Your task to perform on an android device: Search for lenovo thinkpad on walmart.com, select the first entry, add it to the cart, then select checkout. Image 0: 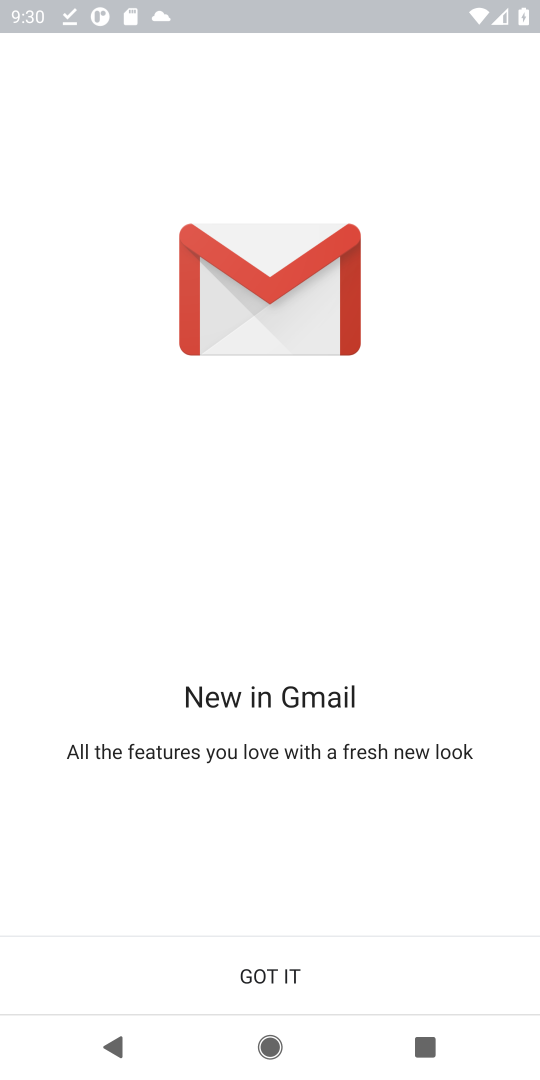
Step 0: press home button
Your task to perform on an android device: Search for lenovo thinkpad on walmart.com, select the first entry, add it to the cart, then select checkout. Image 1: 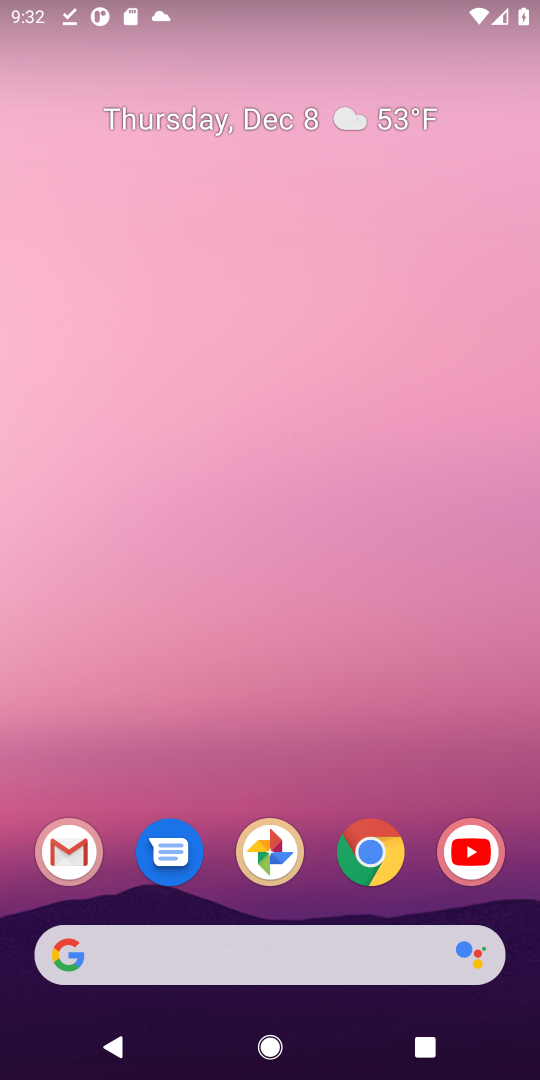
Step 1: click (149, 949)
Your task to perform on an android device: Search for lenovo thinkpad on walmart.com, select the first entry, add it to the cart, then select checkout. Image 2: 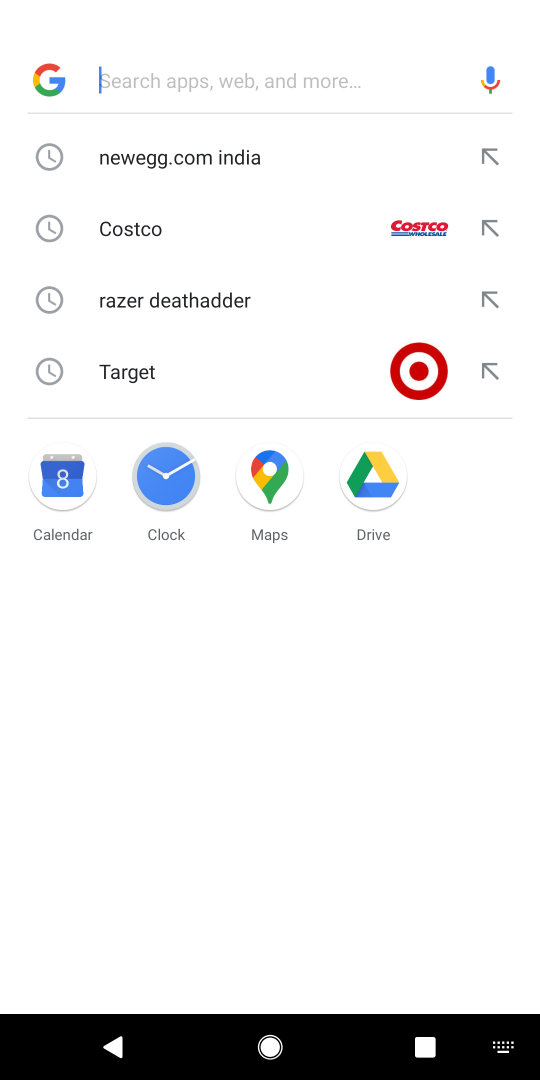
Step 2: type "walmart"
Your task to perform on an android device: Search for lenovo thinkpad on walmart.com, select the first entry, add it to the cart, then select checkout. Image 3: 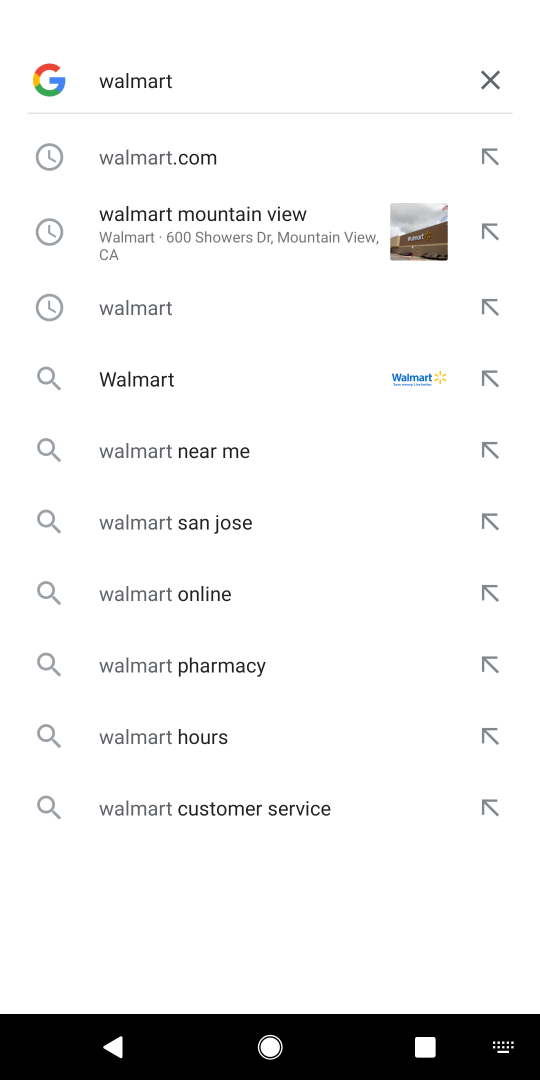
Step 3: click (249, 153)
Your task to perform on an android device: Search for lenovo thinkpad on walmart.com, select the first entry, add it to the cart, then select checkout. Image 4: 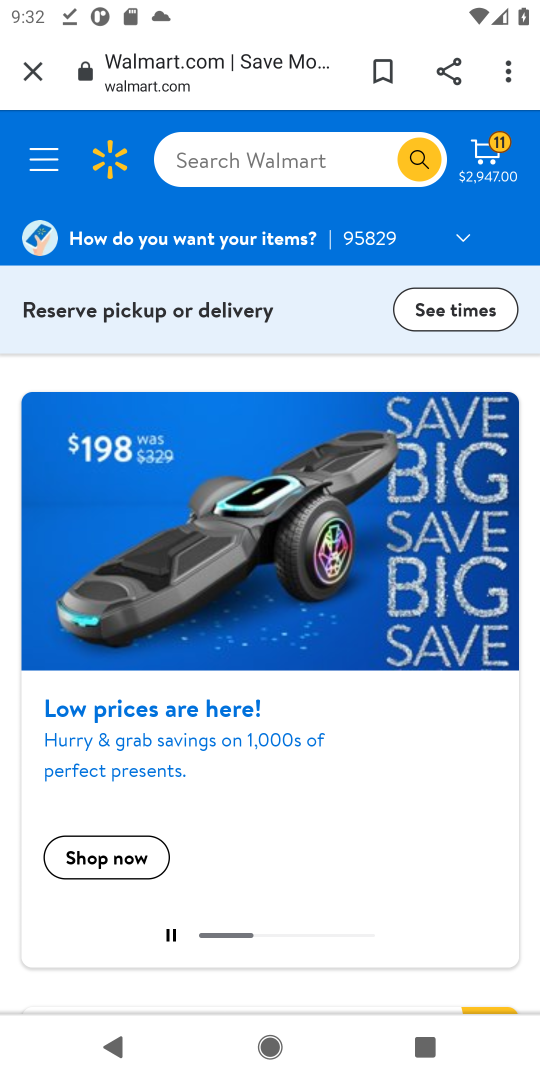
Step 4: click (321, 174)
Your task to perform on an android device: Search for lenovo thinkpad on walmart.com, select the first entry, add it to the cart, then select checkout. Image 5: 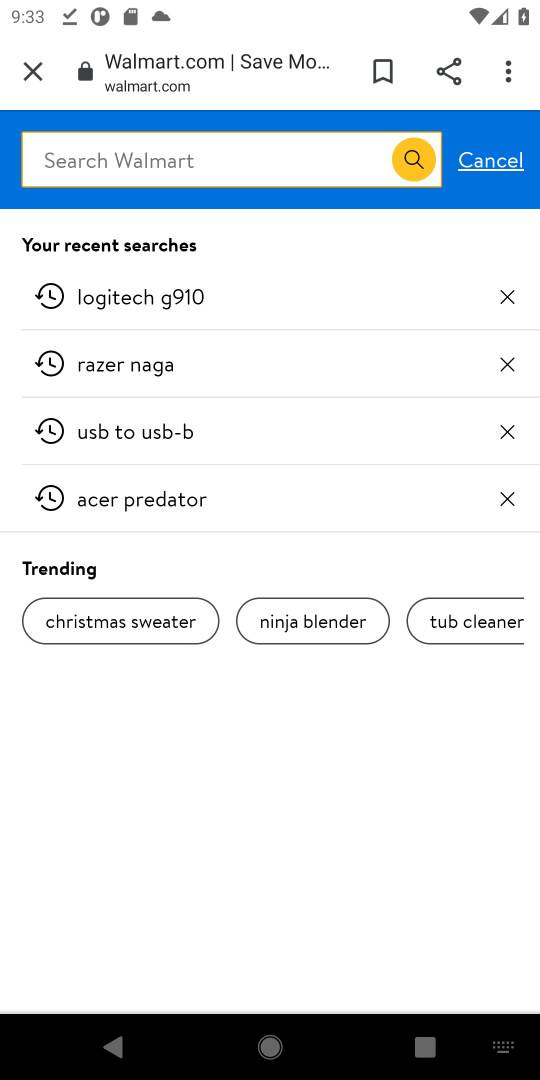
Step 5: type "lenovo tinkpad"
Your task to perform on an android device: Search for lenovo thinkpad on walmart.com, select the first entry, add it to the cart, then select checkout. Image 6: 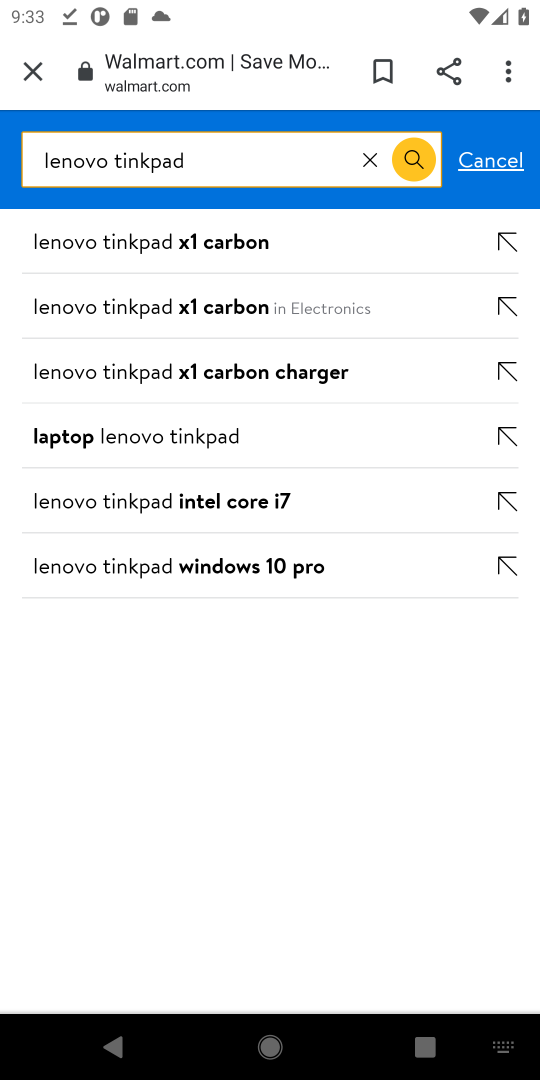
Step 6: click (81, 445)
Your task to perform on an android device: Search for lenovo thinkpad on walmart.com, select the first entry, add it to the cart, then select checkout. Image 7: 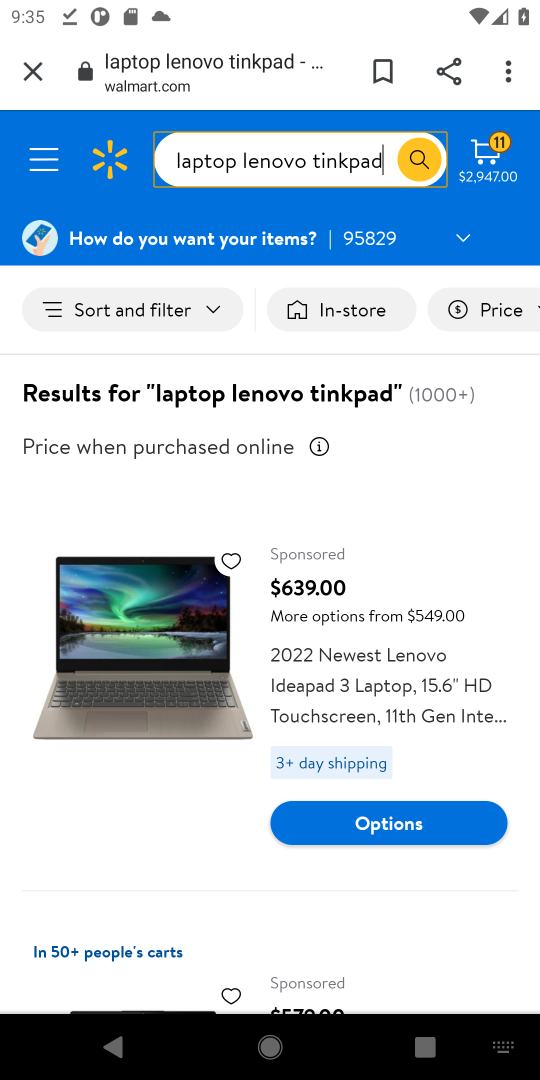
Step 7: task complete